Your task to perform on an android device: add a contact Image 0: 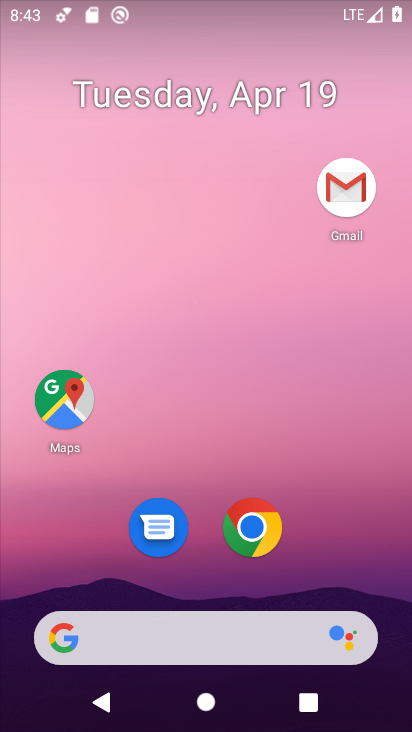
Step 0: drag from (363, 524) to (383, 84)
Your task to perform on an android device: add a contact Image 1: 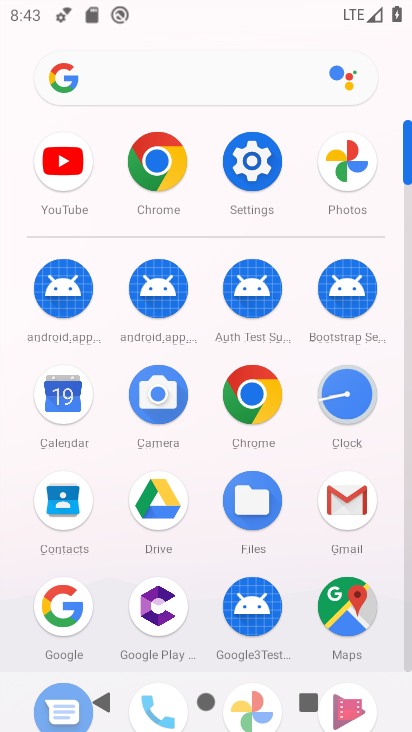
Step 1: click (52, 497)
Your task to perform on an android device: add a contact Image 2: 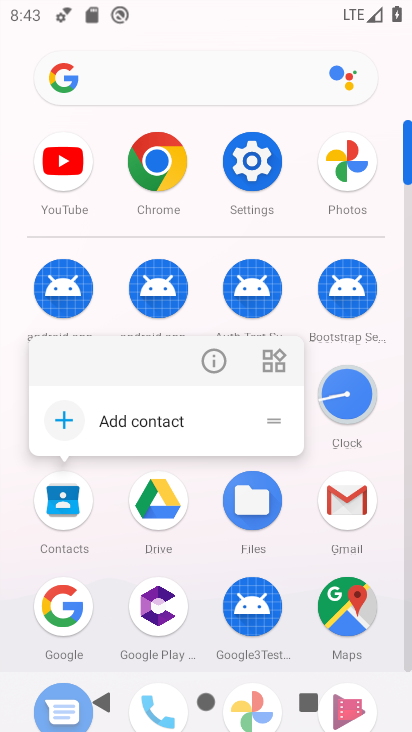
Step 2: click (53, 502)
Your task to perform on an android device: add a contact Image 3: 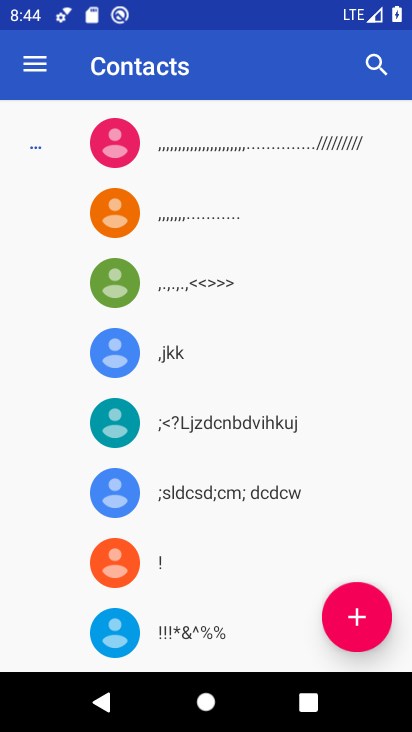
Step 3: click (363, 624)
Your task to perform on an android device: add a contact Image 4: 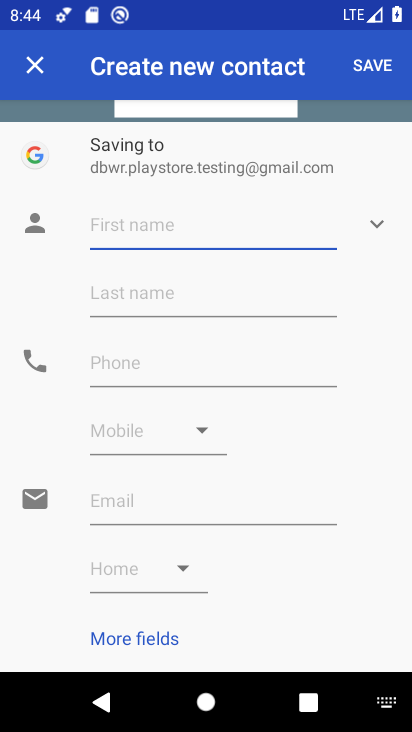
Step 4: type "akhilesh"
Your task to perform on an android device: add a contact Image 5: 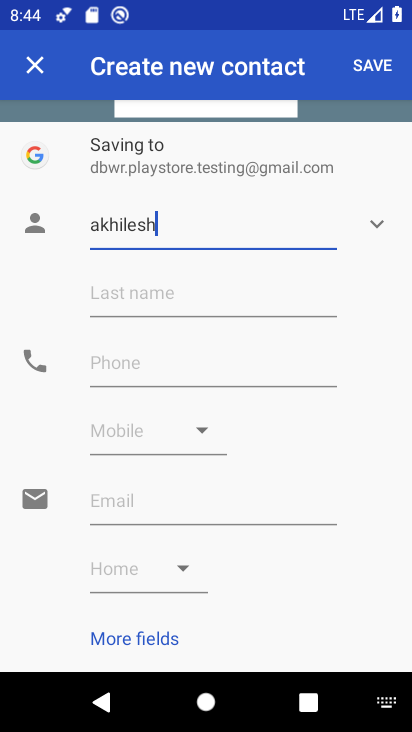
Step 5: click (139, 363)
Your task to perform on an android device: add a contact Image 6: 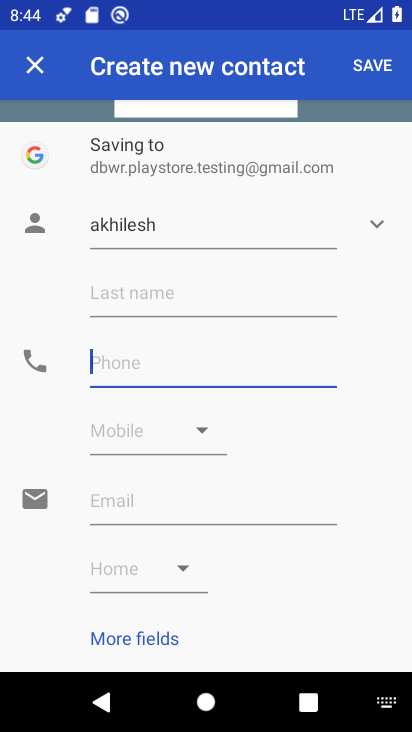
Step 6: type "8778686755"
Your task to perform on an android device: add a contact Image 7: 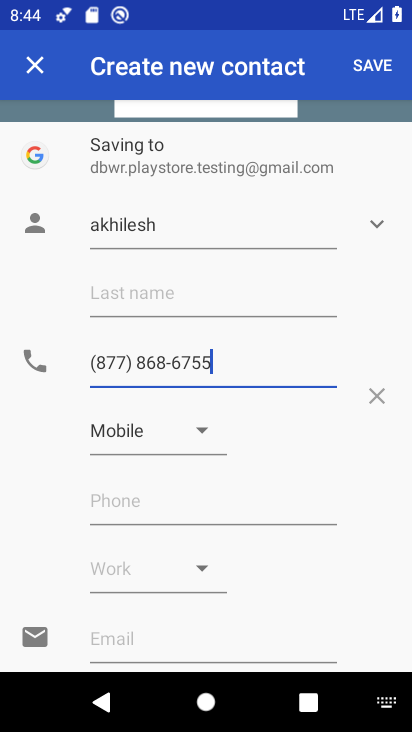
Step 7: click (357, 65)
Your task to perform on an android device: add a contact Image 8: 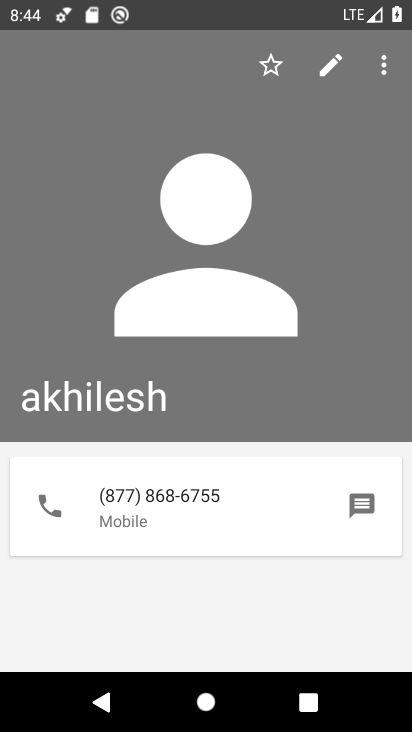
Step 8: task complete